Your task to perform on an android device: Open settings on Google Maps Image 0: 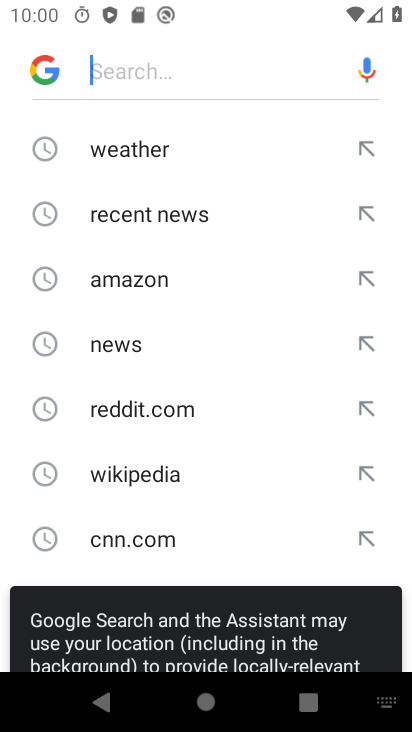
Step 0: press home button
Your task to perform on an android device: Open settings on Google Maps Image 1: 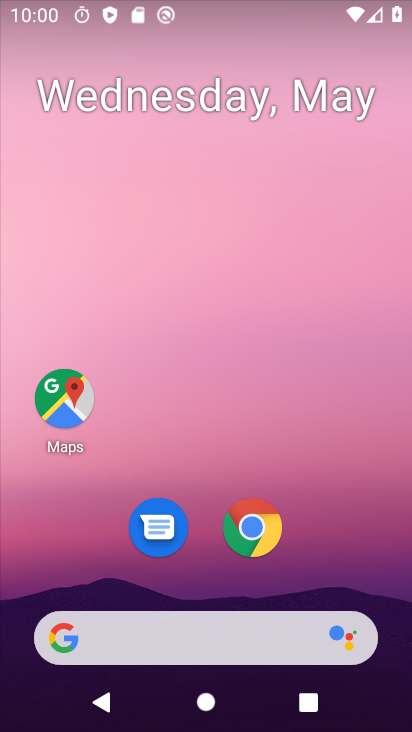
Step 1: drag from (343, 504) to (52, 96)
Your task to perform on an android device: Open settings on Google Maps Image 2: 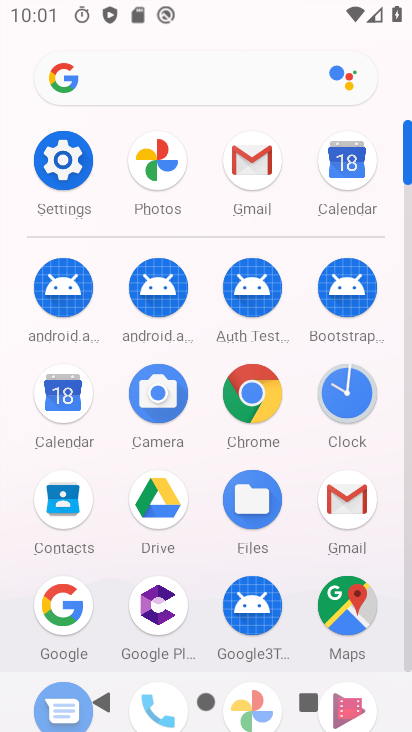
Step 2: click (317, 588)
Your task to perform on an android device: Open settings on Google Maps Image 3: 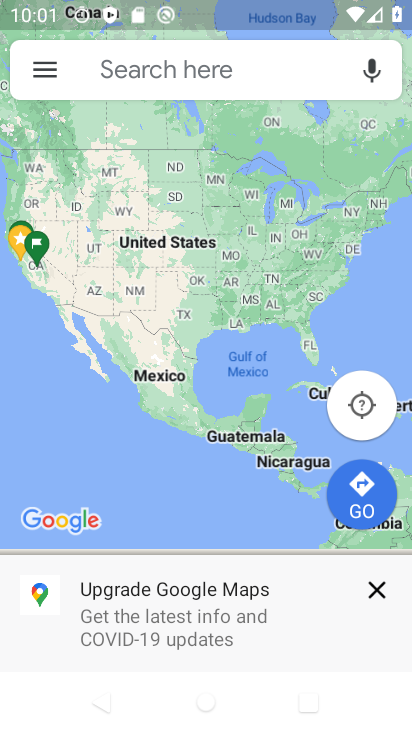
Step 3: click (41, 66)
Your task to perform on an android device: Open settings on Google Maps Image 4: 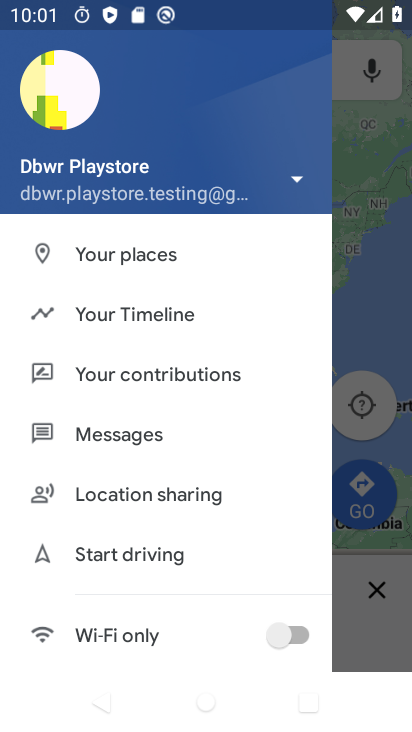
Step 4: click (112, 321)
Your task to perform on an android device: Open settings on Google Maps Image 5: 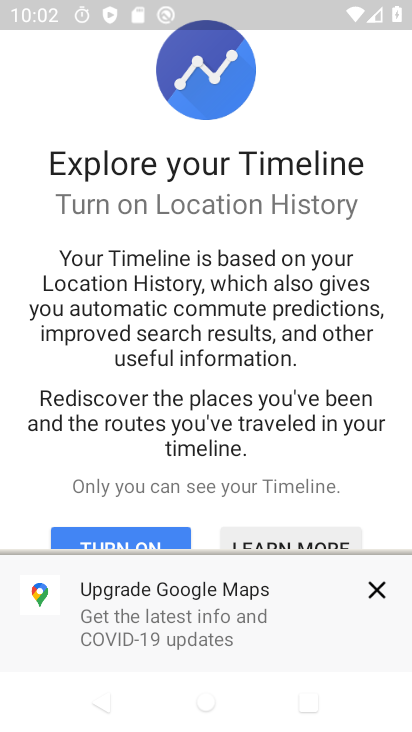
Step 5: click (378, 597)
Your task to perform on an android device: Open settings on Google Maps Image 6: 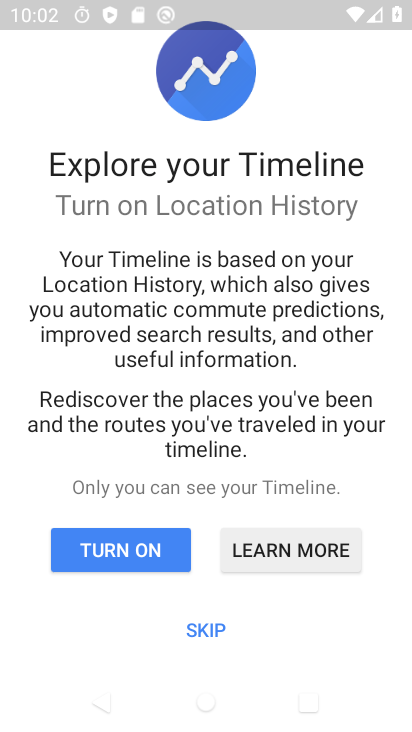
Step 6: click (197, 633)
Your task to perform on an android device: Open settings on Google Maps Image 7: 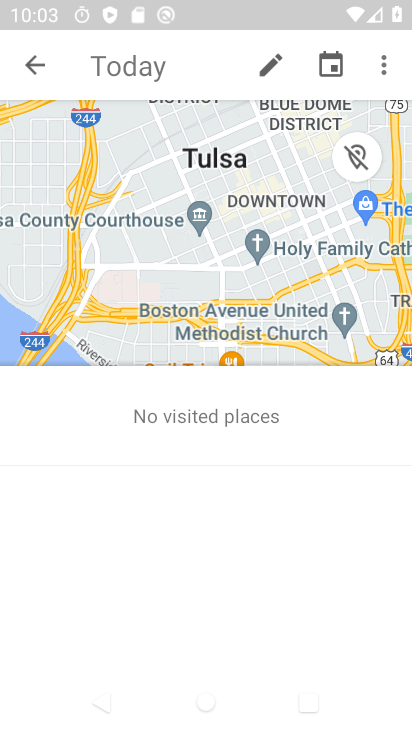
Step 7: click (385, 72)
Your task to perform on an android device: Open settings on Google Maps Image 8: 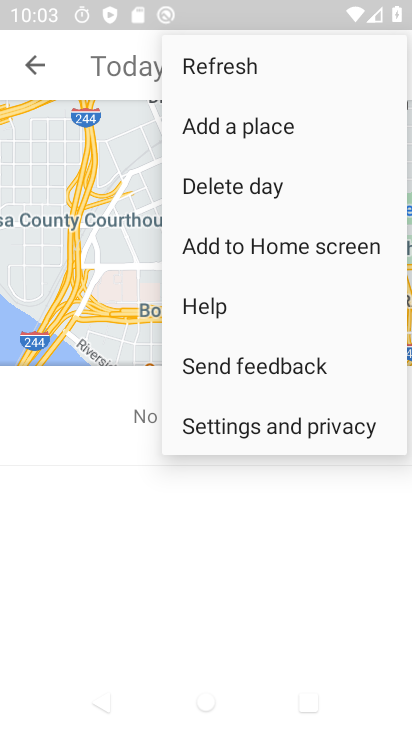
Step 8: click (308, 419)
Your task to perform on an android device: Open settings on Google Maps Image 9: 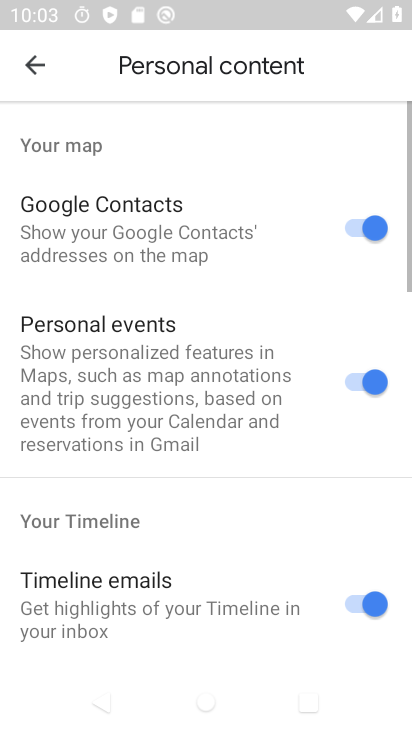
Step 9: task complete